Your task to perform on an android device: turn on wifi Image 0: 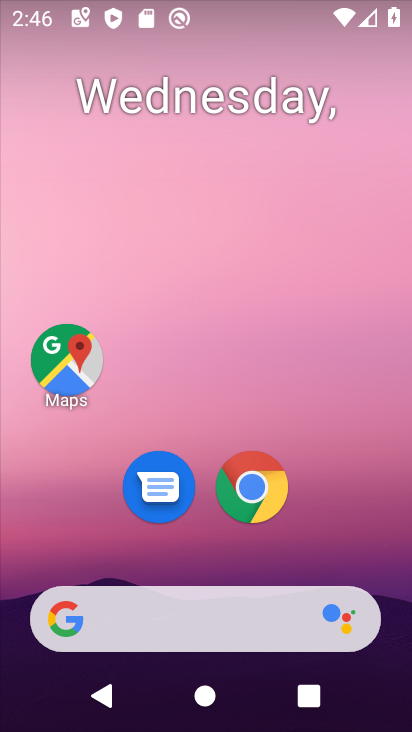
Step 0: drag from (377, 559) to (371, 169)
Your task to perform on an android device: turn on wifi Image 1: 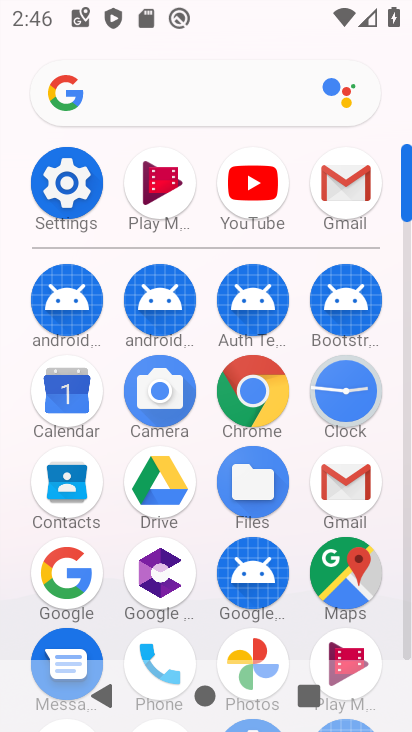
Step 1: click (66, 200)
Your task to perform on an android device: turn on wifi Image 2: 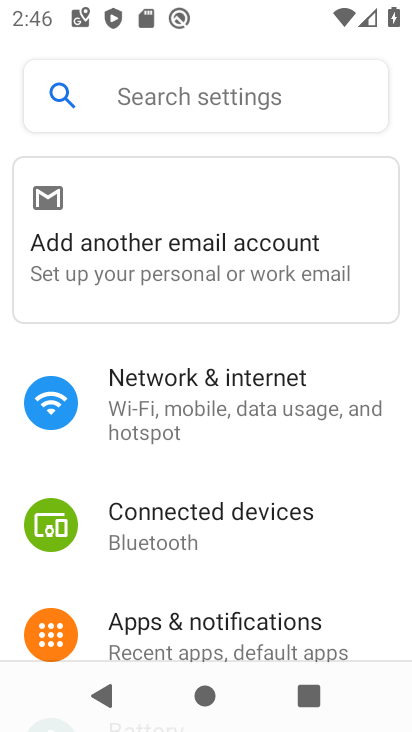
Step 2: drag from (366, 497) to (349, 382)
Your task to perform on an android device: turn on wifi Image 3: 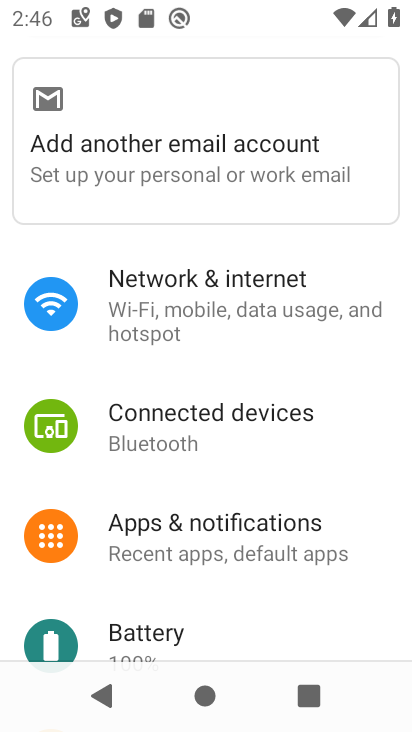
Step 3: drag from (363, 514) to (369, 388)
Your task to perform on an android device: turn on wifi Image 4: 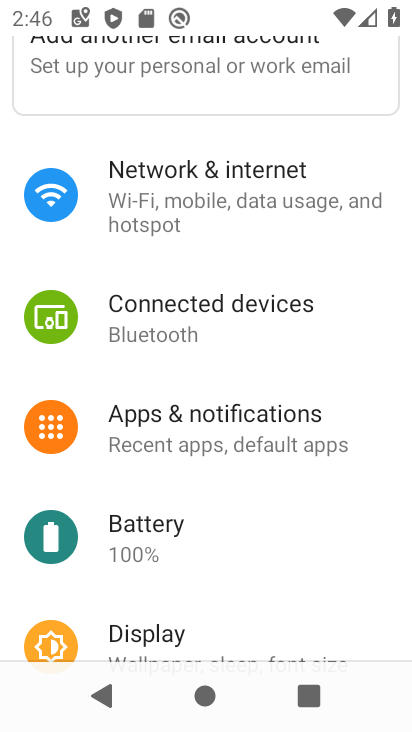
Step 4: drag from (351, 535) to (356, 432)
Your task to perform on an android device: turn on wifi Image 5: 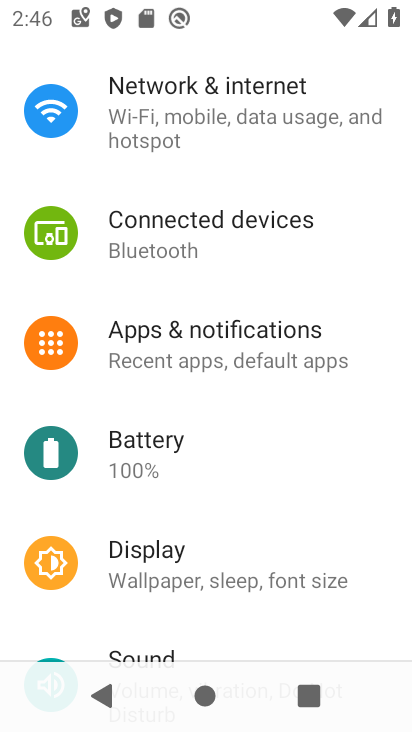
Step 5: drag from (353, 568) to (353, 446)
Your task to perform on an android device: turn on wifi Image 6: 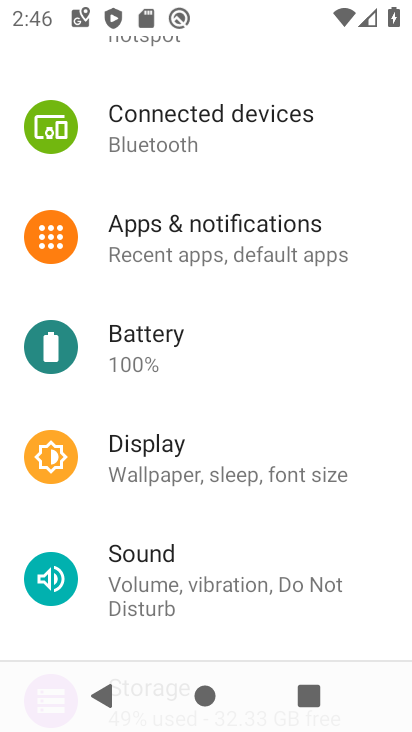
Step 6: drag from (362, 535) to (355, 446)
Your task to perform on an android device: turn on wifi Image 7: 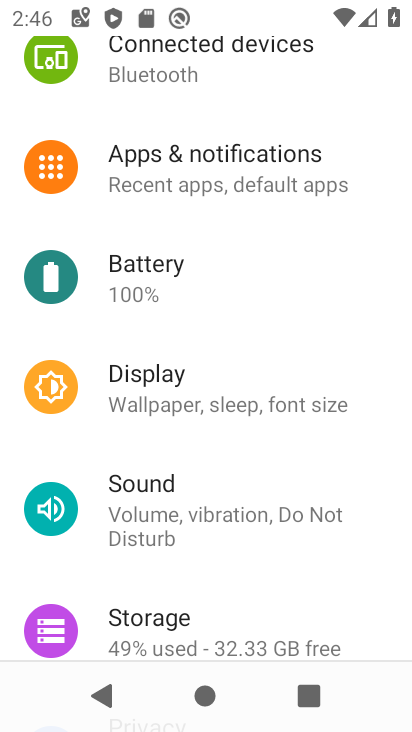
Step 7: drag from (367, 518) to (365, 440)
Your task to perform on an android device: turn on wifi Image 8: 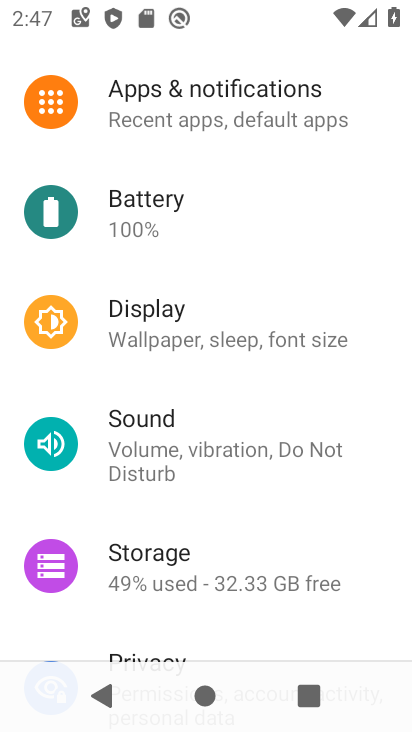
Step 8: drag from (358, 556) to (353, 451)
Your task to perform on an android device: turn on wifi Image 9: 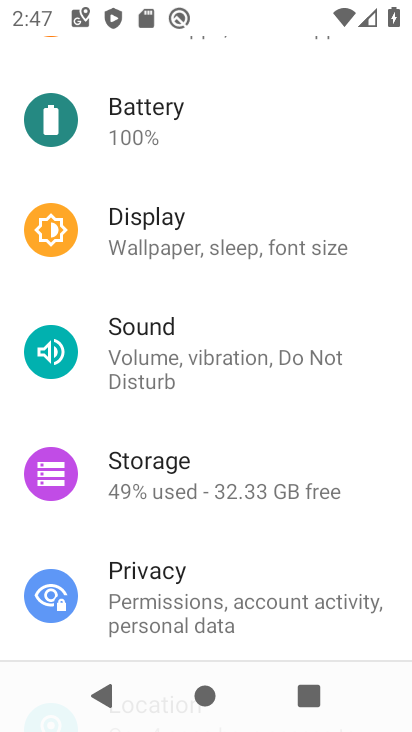
Step 9: drag from (373, 564) to (371, 460)
Your task to perform on an android device: turn on wifi Image 10: 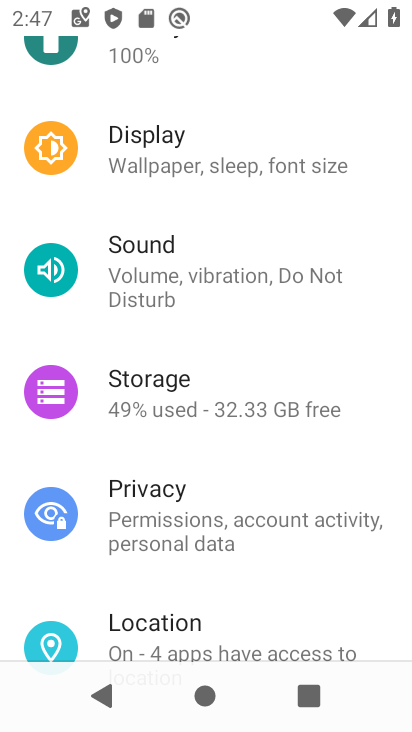
Step 10: drag from (362, 325) to (369, 408)
Your task to perform on an android device: turn on wifi Image 11: 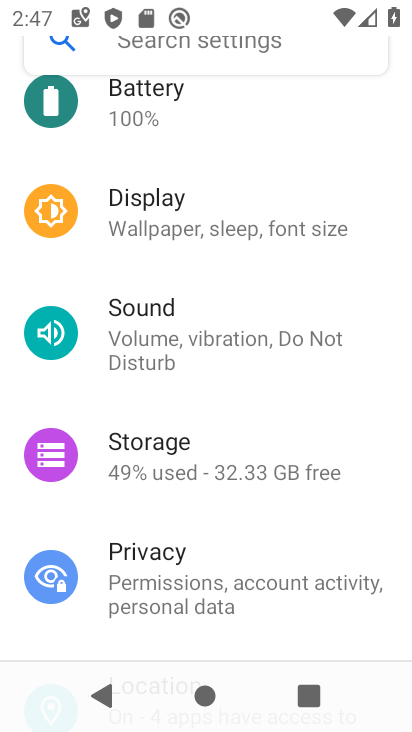
Step 11: drag from (373, 324) to (378, 398)
Your task to perform on an android device: turn on wifi Image 12: 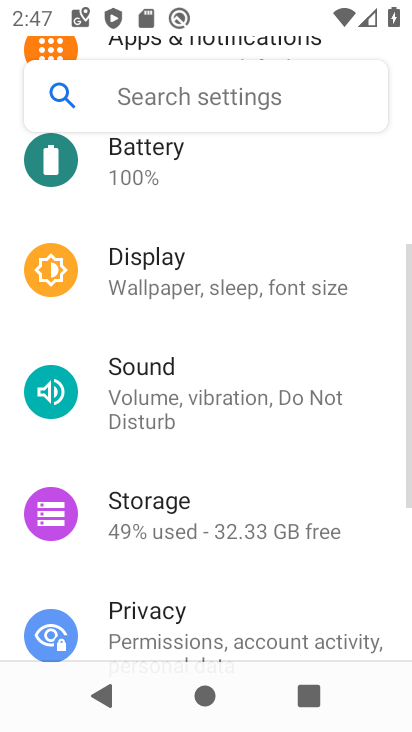
Step 12: drag from (368, 299) to (378, 392)
Your task to perform on an android device: turn on wifi Image 13: 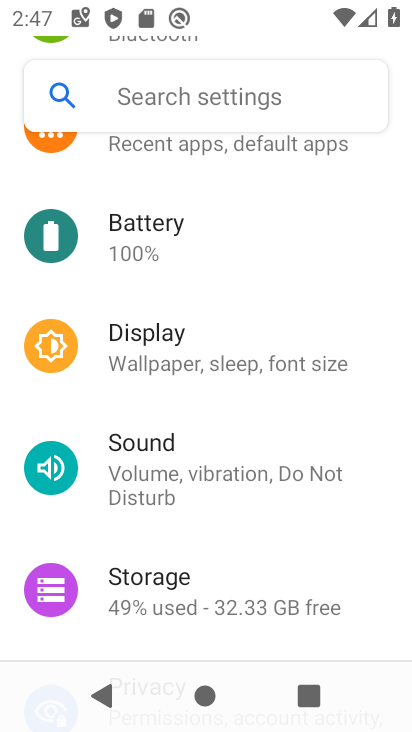
Step 13: drag from (367, 299) to (371, 388)
Your task to perform on an android device: turn on wifi Image 14: 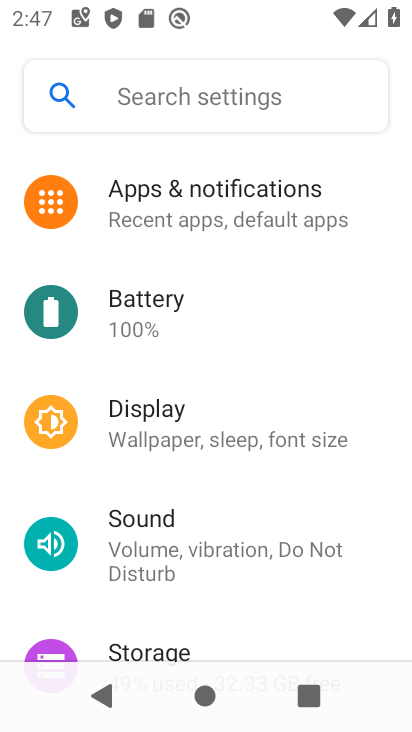
Step 14: drag from (369, 300) to (373, 384)
Your task to perform on an android device: turn on wifi Image 15: 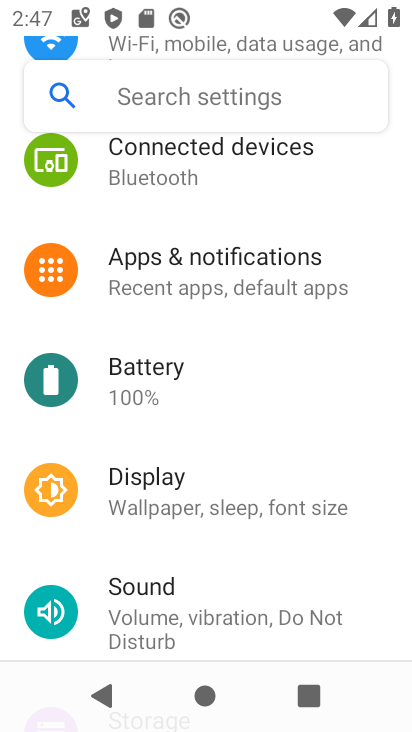
Step 15: drag from (364, 268) to (364, 396)
Your task to perform on an android device: turn on wifi Image 16: 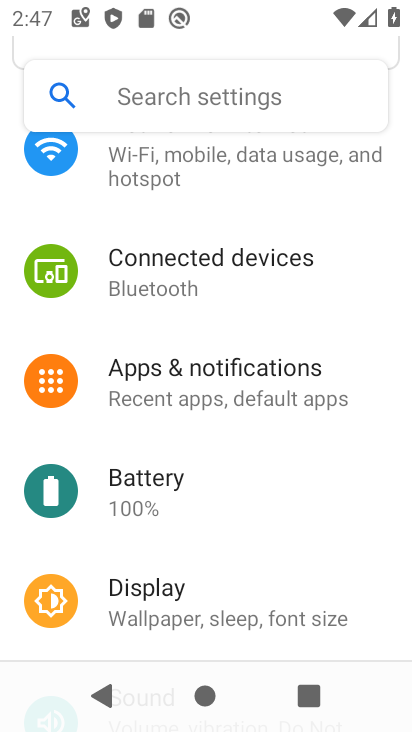
Step 16: drag from (362, 263) to (361, 386)
Your task to perform on an android device: turn on wifi Image 17: 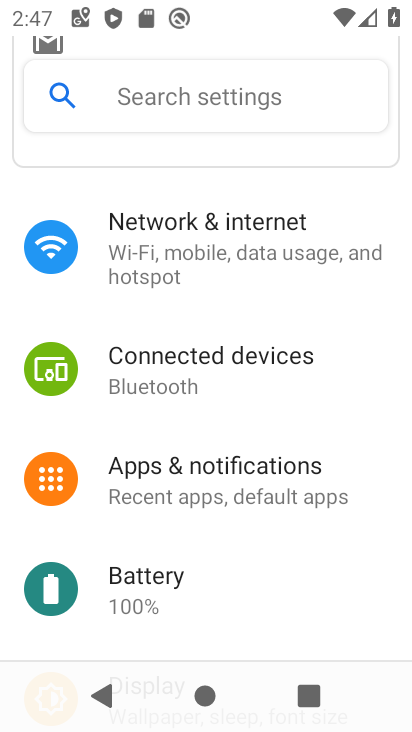
Step 17: drag from (362, 211) to (353, 439)
Your task to perform on an android device: turn on wifi Image 18: 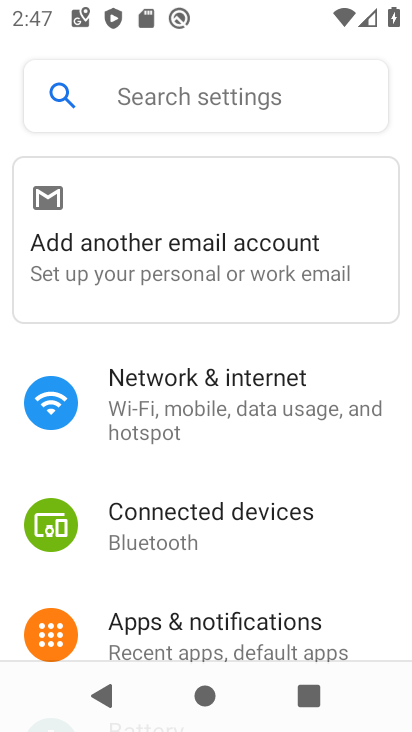
Step 18: click (238, 422)
Your task to perform on an android device: turn on wifi Image 19: 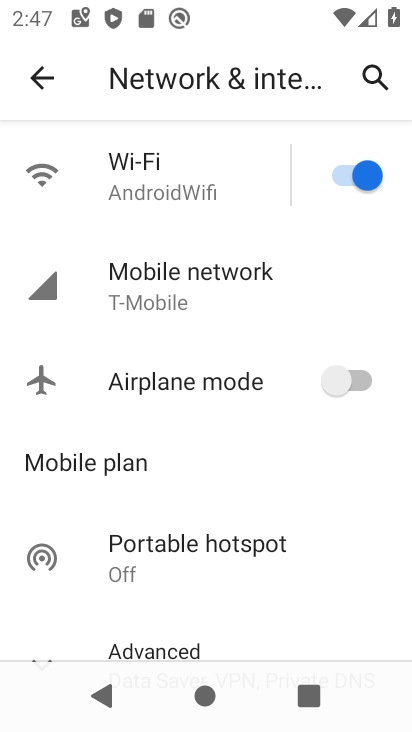
Step 19: task complete